Your task to perform on an android device: find snoozed emails in the gmail app Image 0: 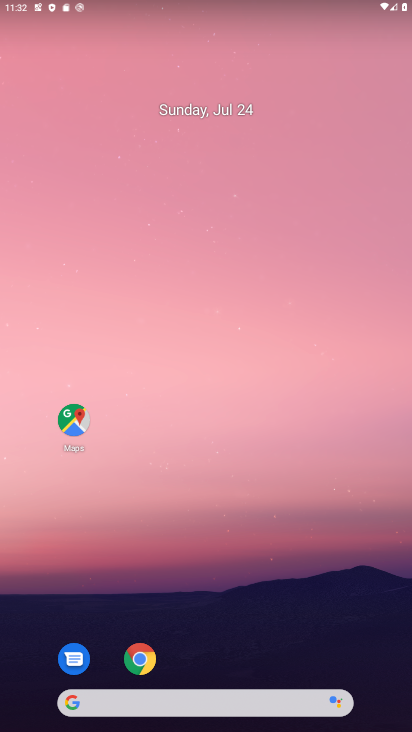
Step 0: drag from (61, 447) to (98, 167)
Your task to perform on an android device: find snoozed emails in the gmail app Image 1: 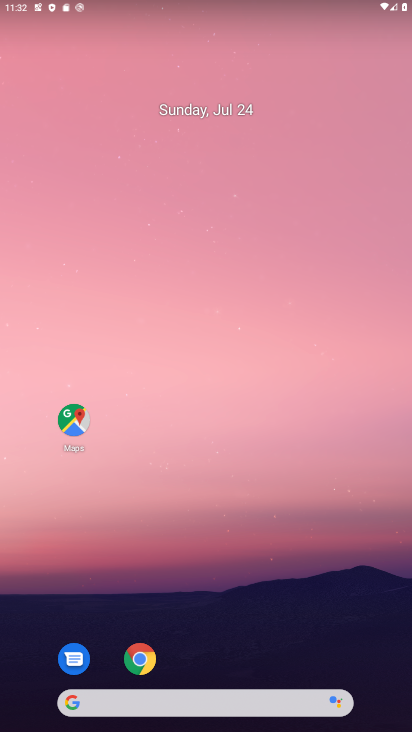
Step 1: drag from (123, 391) to (227, 44)
Your task to perform on an android device: find snoozed emails in the gmail app Image 2: 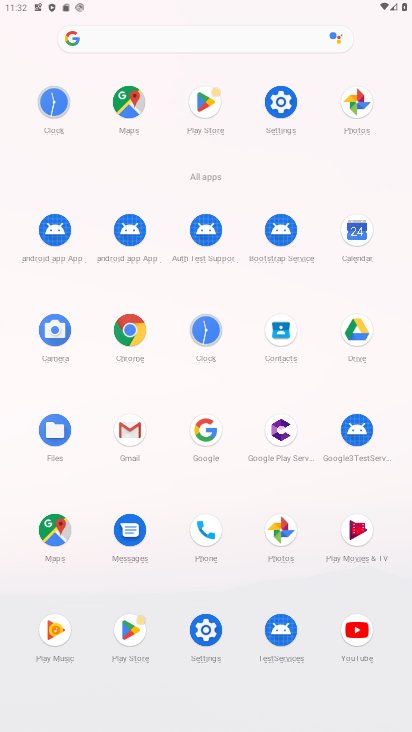
Step 2: click (122, 437)
Your task to perform on an android device: find snoozed emails in the gmail app Image 3: 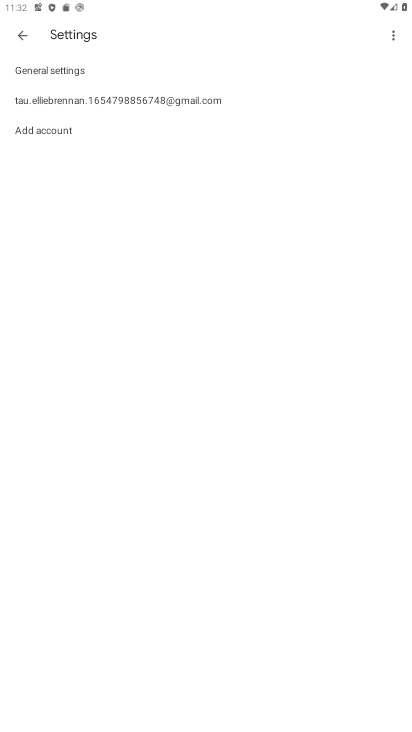
Step 3: click (22, 41)
Your task to perform on an android device: find snoozed emails in the gmail app Image 4: 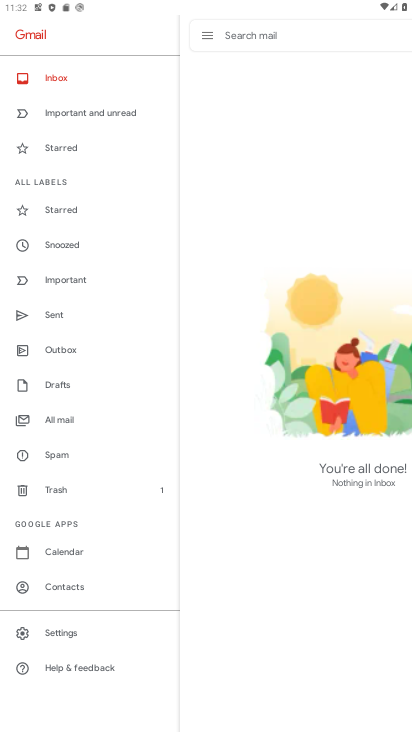
Step 4: click (79, 246)
Your task to perform on an android device: find snoozed emails in the gmail app Image 5: 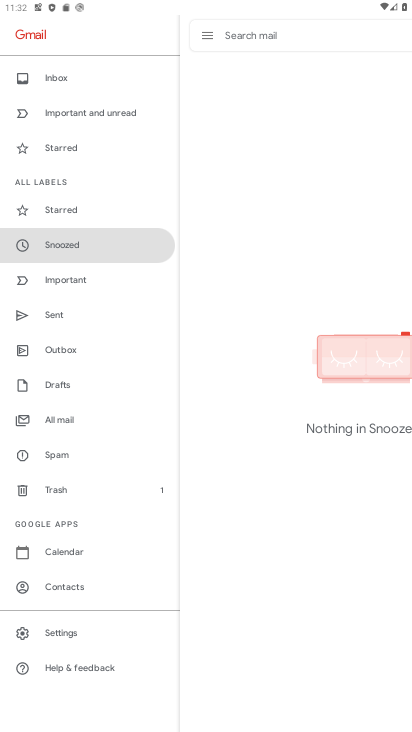
Step 5: task complete